Your task to perform on an android device: turn on priority inbox in the gmail app Image 0: 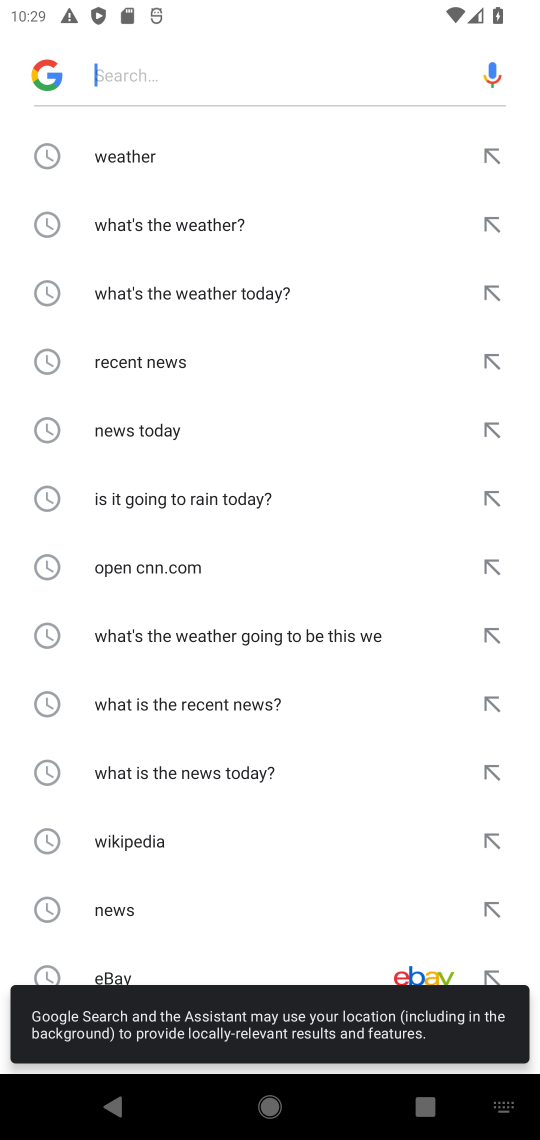
Step 0: press back button
Your task to perform on an android device: turn on priority inbox in the gmail app Image 1: 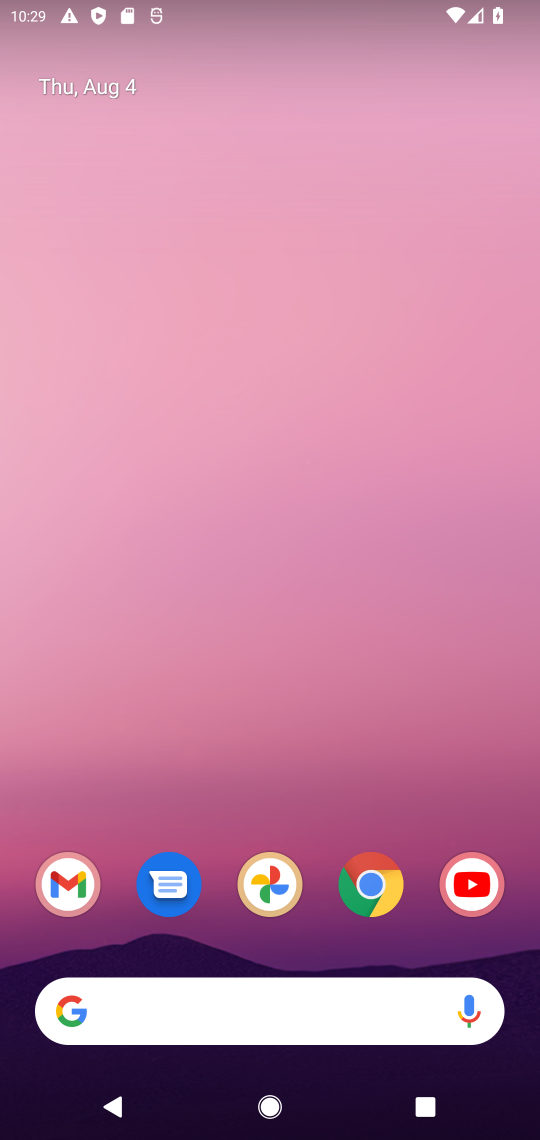
Step 1: press back button
Your task to perform on an android device: turn on priority inbox in the gmail app Image 2: 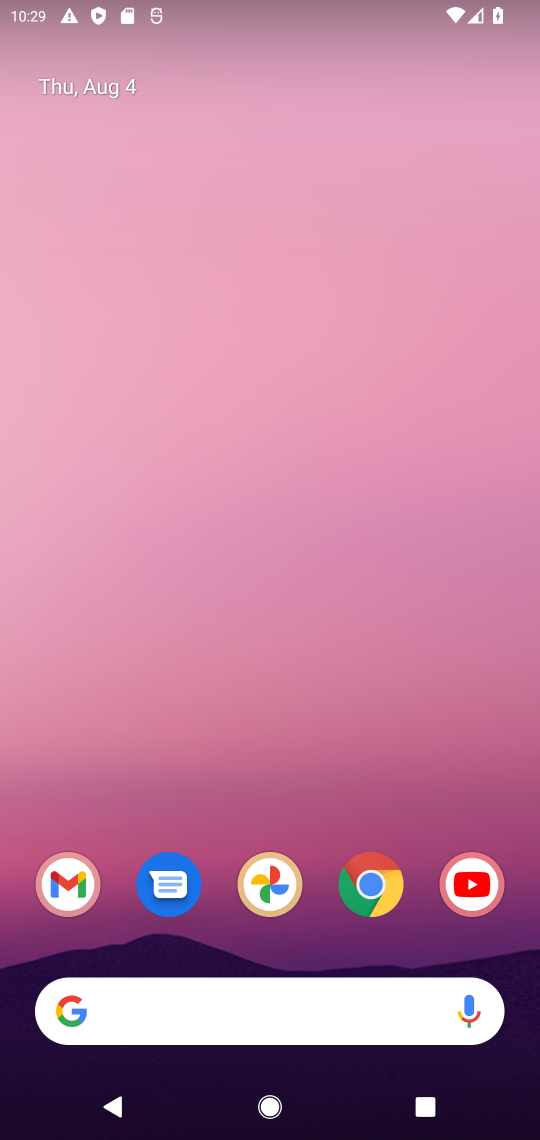
Step 2: click (82, 902)
Your task to perform on an android device: turn on priority inbox in the gmail app Image 3: 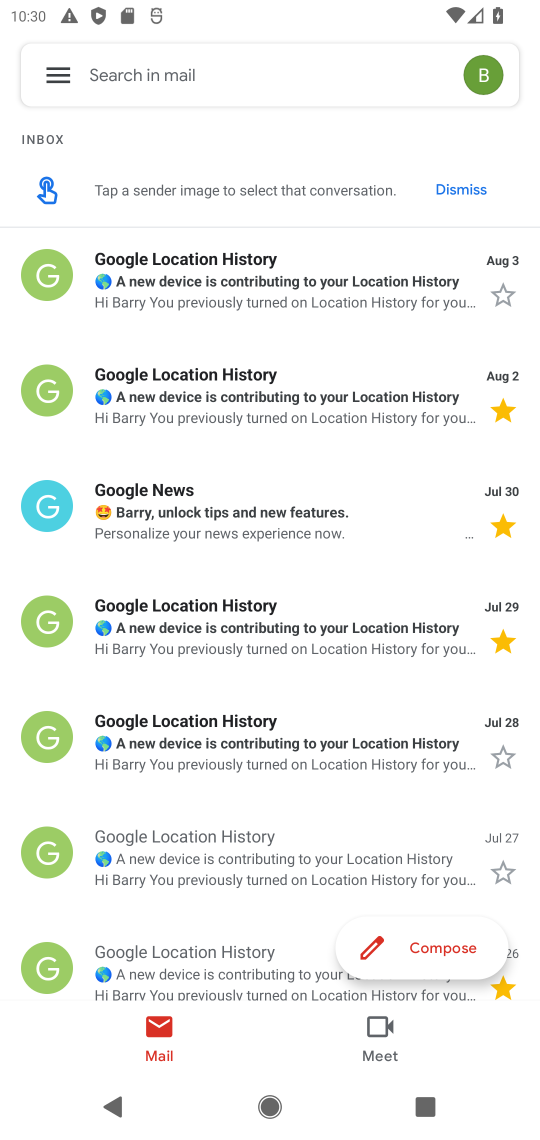
Step 3: click (55, 86)
Your task to perform on an android device: turn on priority inbox in the gmail app Image 4: 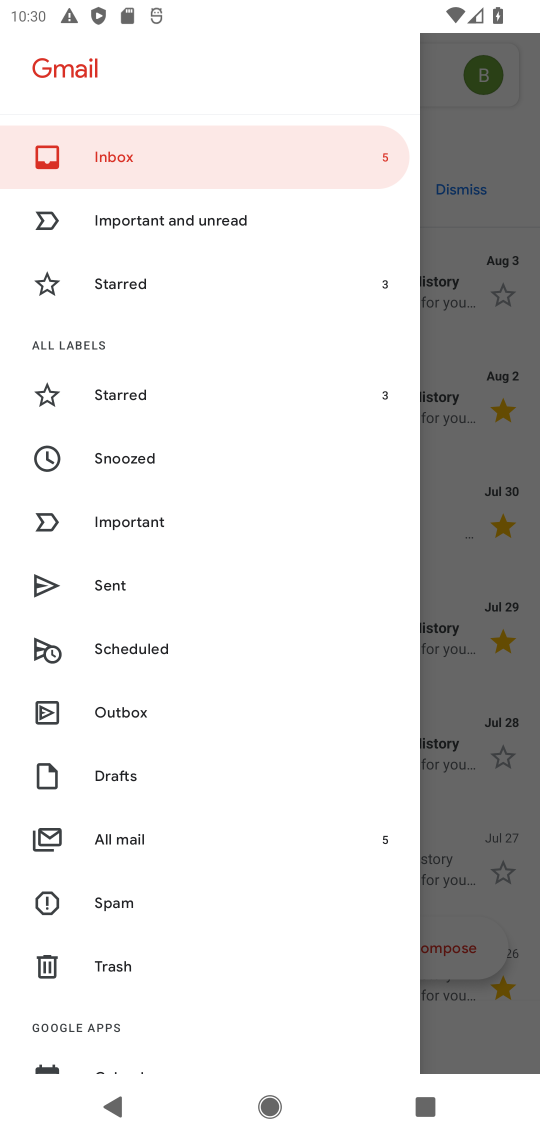
Step 4: drag from (148, 924) to (157, 349)
Your task to perform on an android device: turn on priority inbox in the gmail app Image 5: 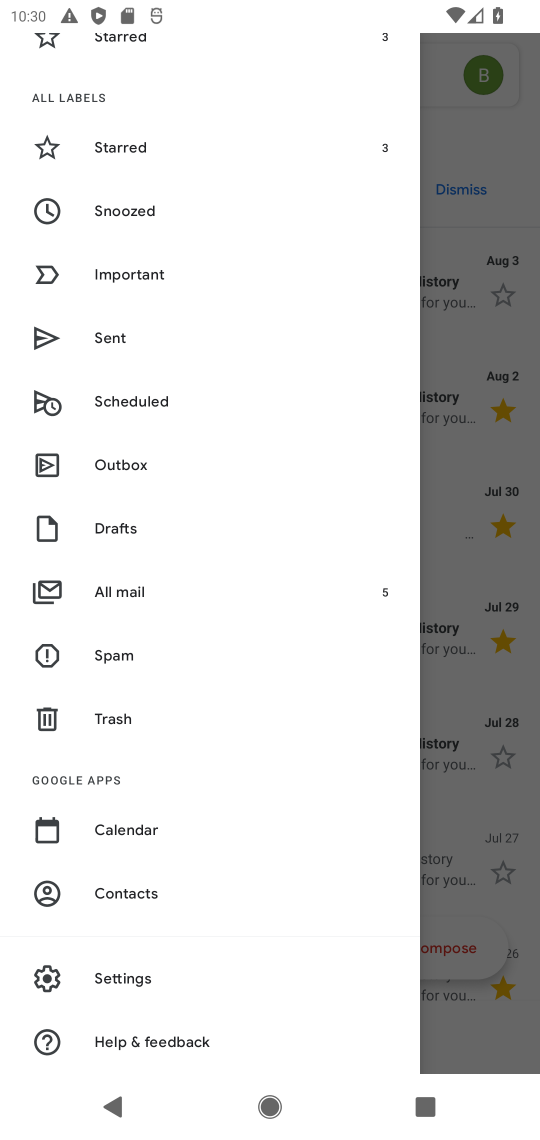
Step 5: click (158, 987)
Your task to perform on an android device: turn on priority inbox in the gmail app Image 6: 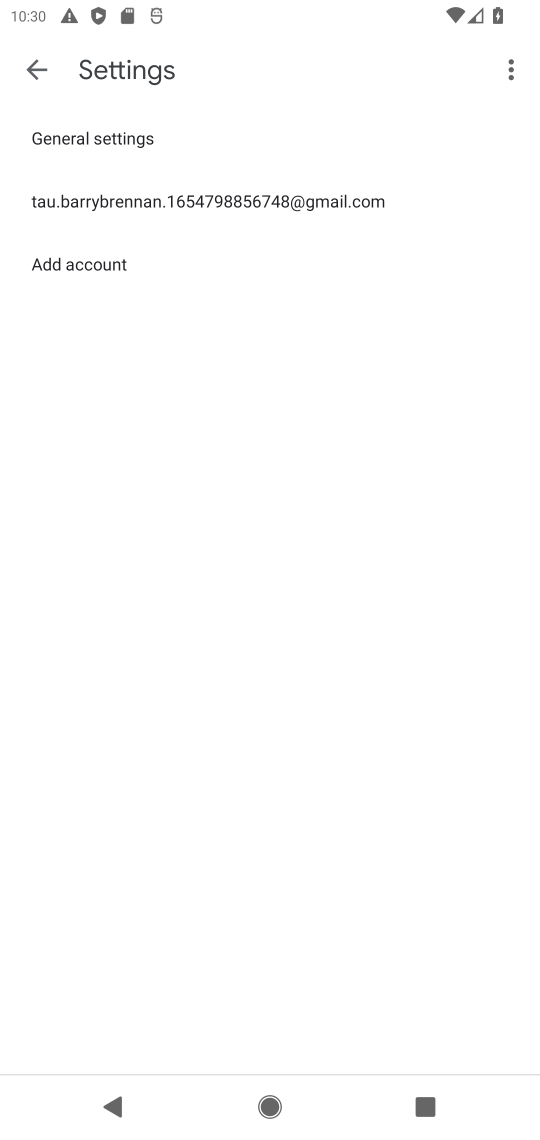
Step 6: click (172, 199)
Your task to perform on an android device: turn on priority inbox in the gmail app Image 7: 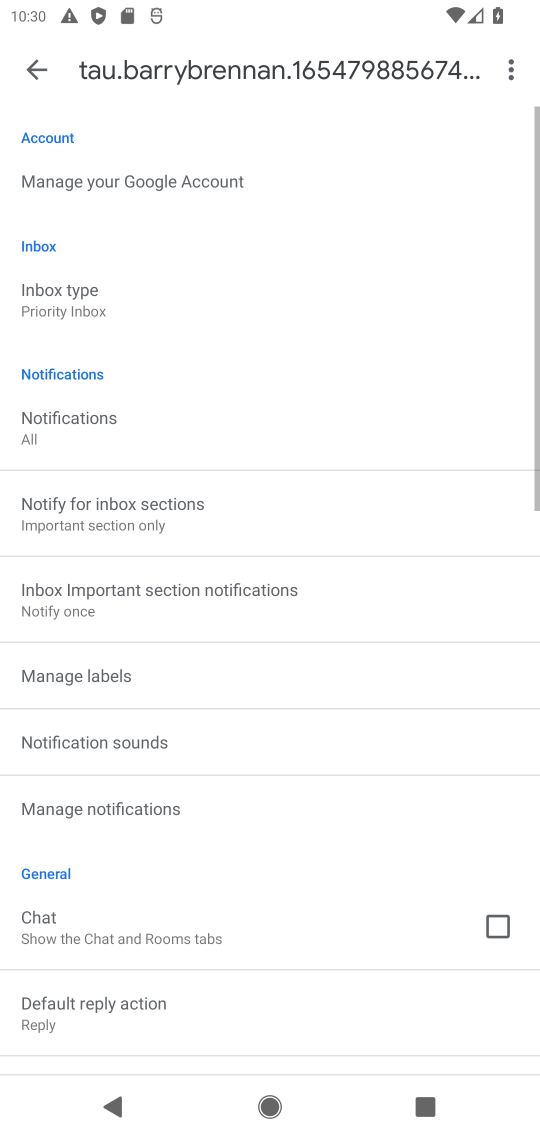
Step 7: click (74, 308)
Your task to perform on an android device: turn on priority inbox in the gmail app Image 8: 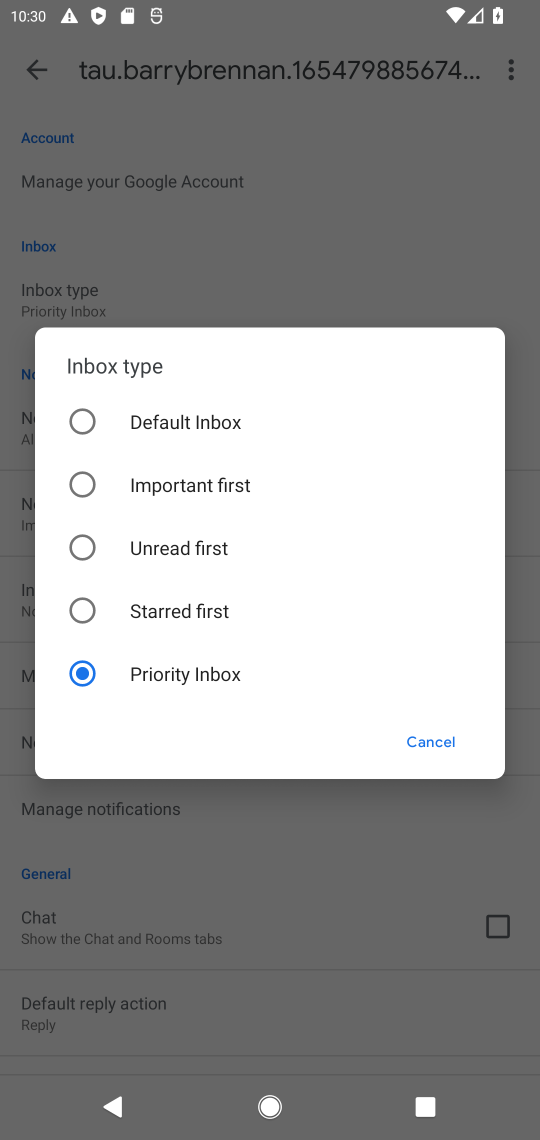
Step 8: click (146, 667)
Your task to perform on an android device: turn on priority inbox in the gmail app Image 9: 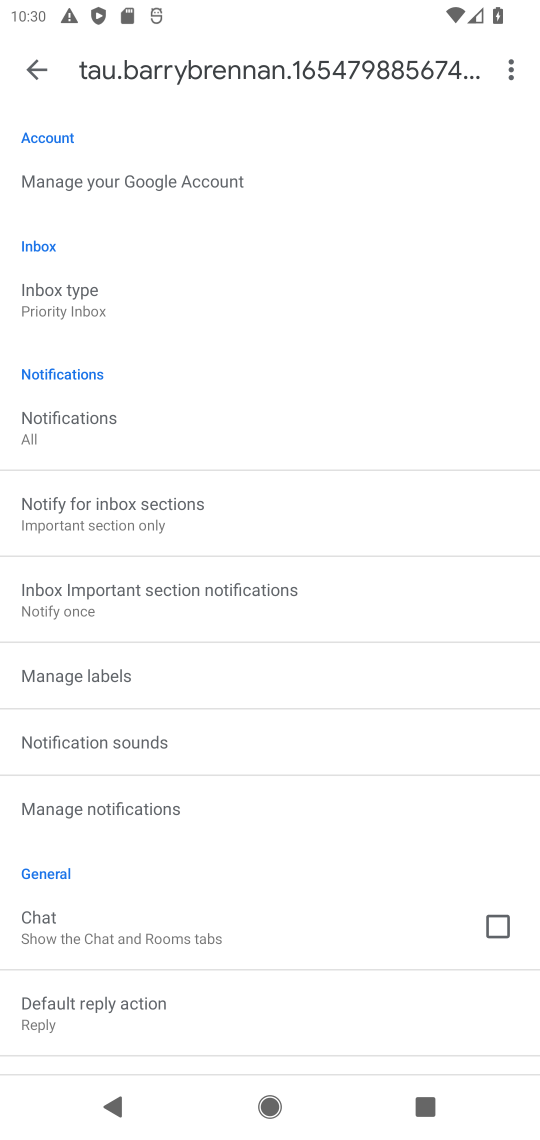
Step 9: task complete